Your task to perform on an android device: What's the weather going to be tomorrow? Image 0: 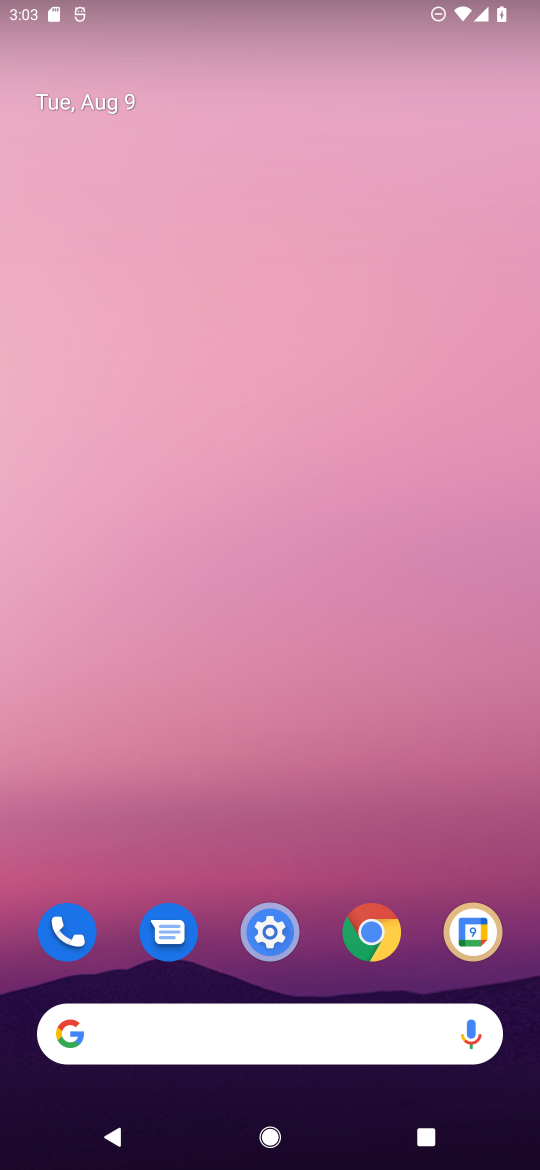
Step 0: click (136, 1027)
Your task to perform on an android device: What's the weather going to be tomorrow? Image 1: 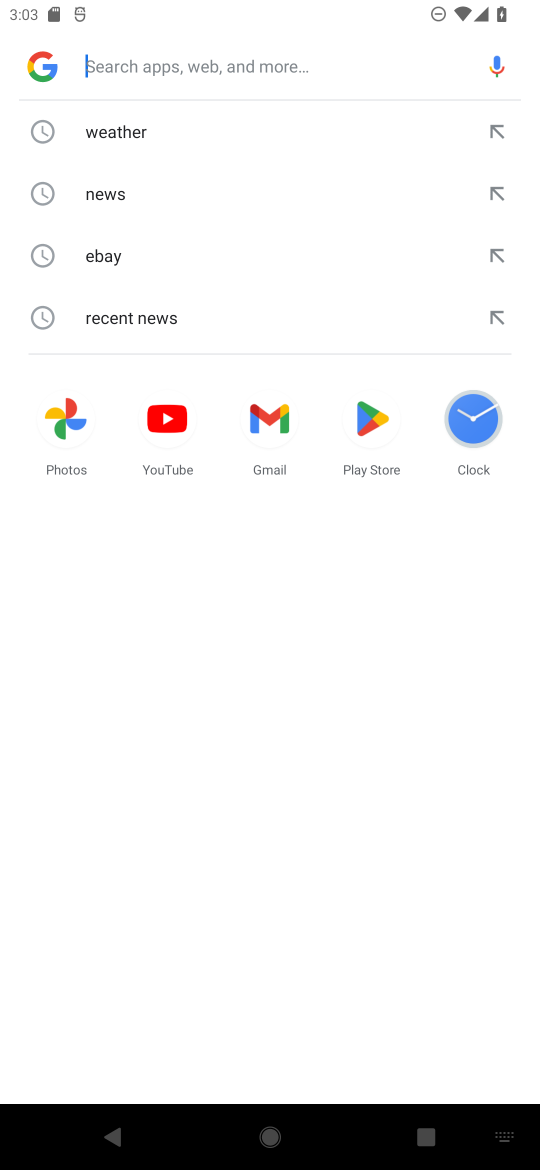
Step 1: type "What's the weather going to be tomorrow?"
Your task to perform on an android device: What's the weather going to be tomorrow? Image 2: 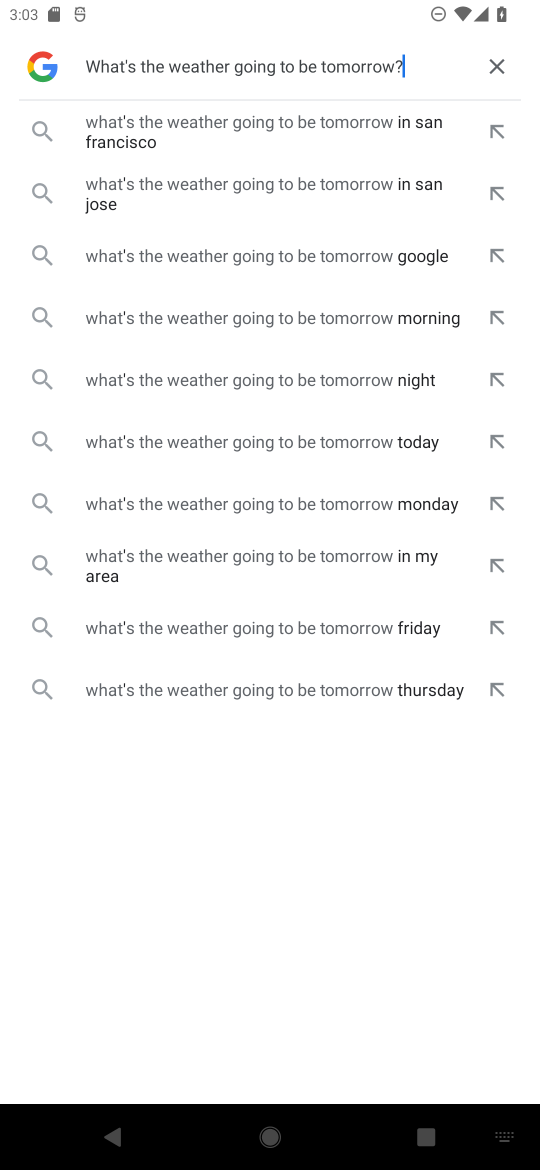
Step 2: type ""
Your task to perform on an android device: What's the weather going to be tomorrow? Image 3: 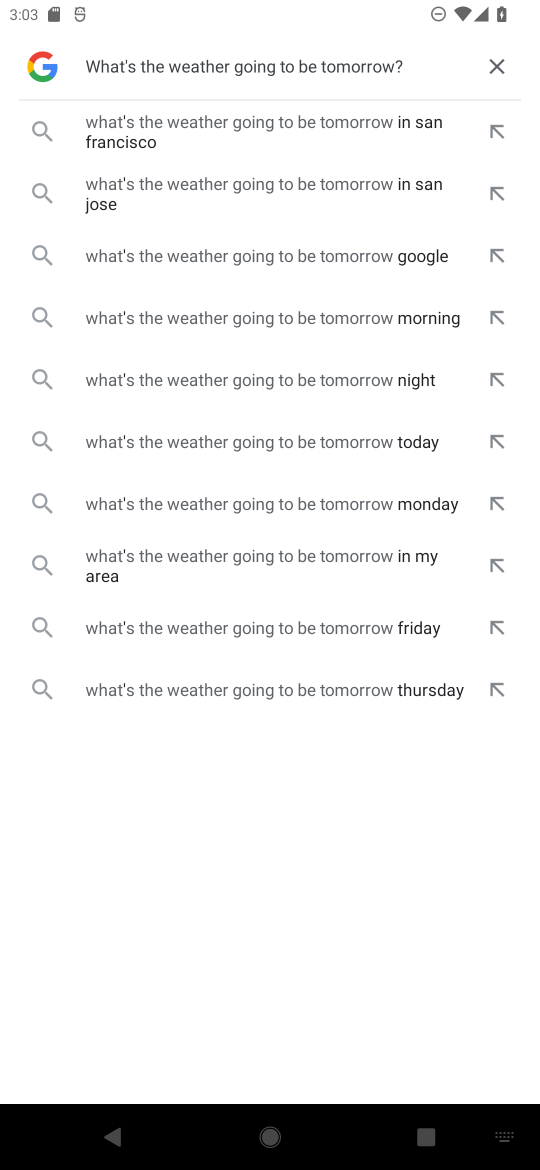
Step 3: type ""
Your task to perform on an android device: What's the weather going to be tomorrow? Image 4: 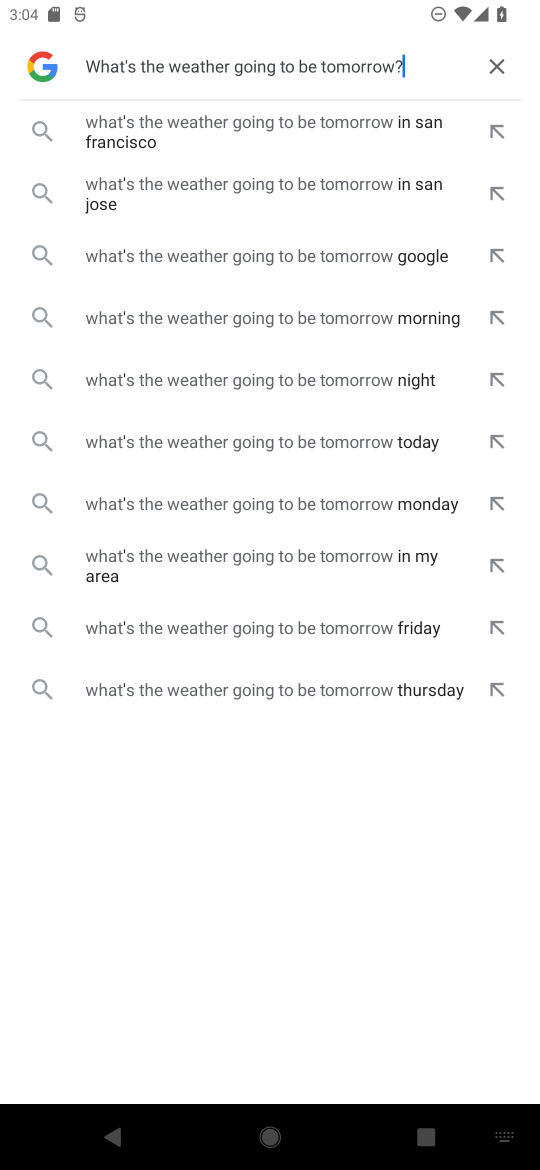
Step 4: task complete